Your task to perform on an android device: Go to Reddit.com Image 0: 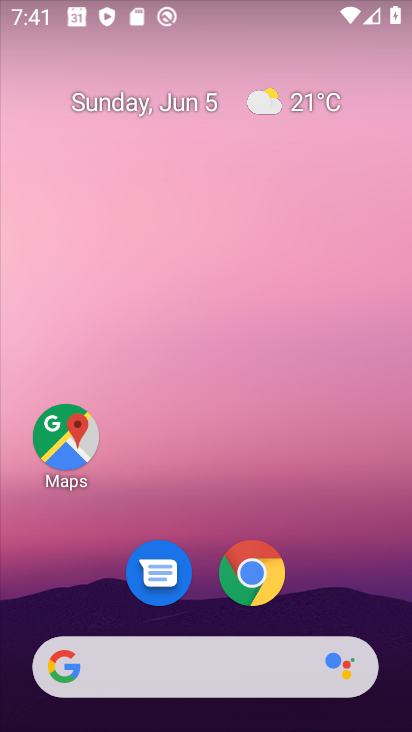
Step 0: click (250, 575)
Your task to perform on an android device: Go to Reddit.com Image 1: 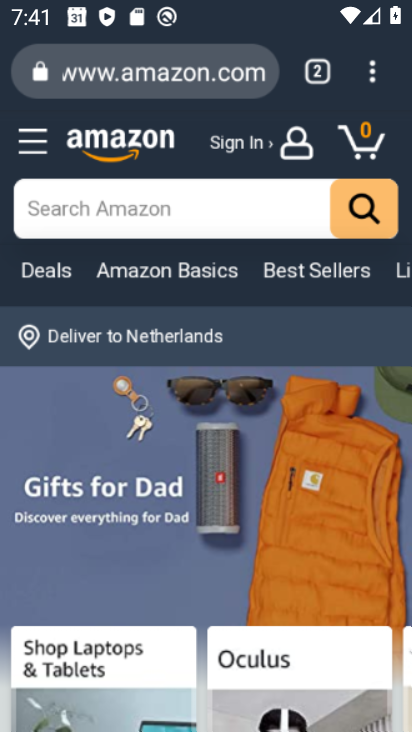
Step 1: click (369, 49)
Your task to perform on an android device: Go to Reddit.com Image 2: 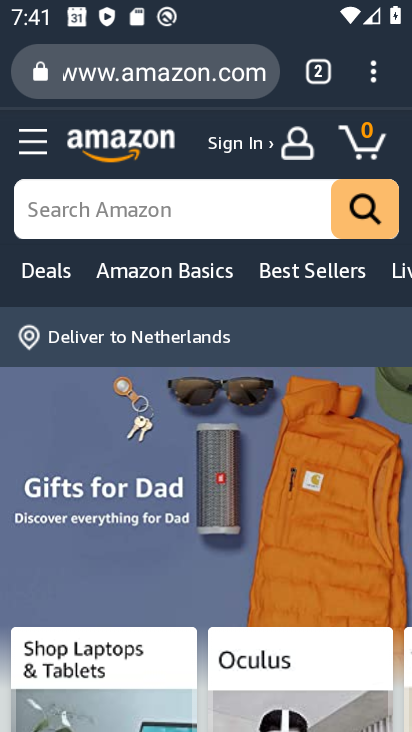
Step 2: click (377, 65)
Your task to perform on an android device: Go to Reddit.com Image 3: 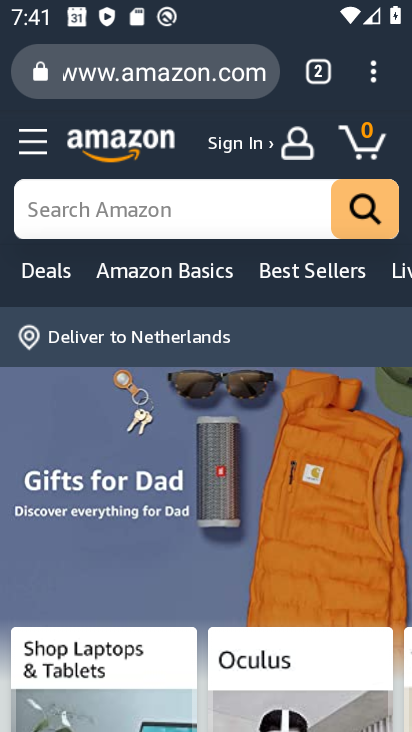
Step 3: click (370, 71)
Your task to perform on an android device: Go to Reddit.com Image 4: 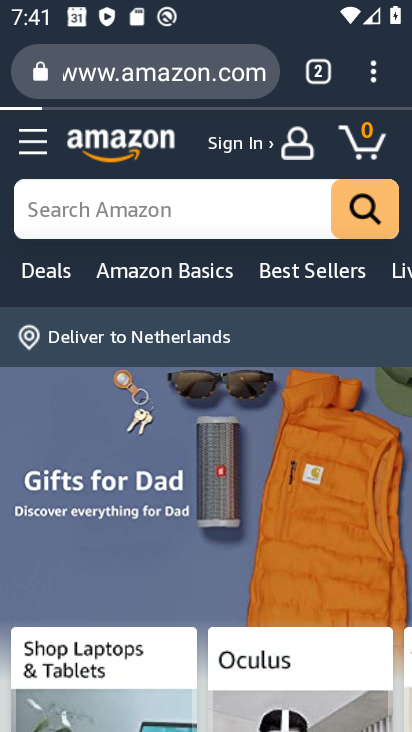
Step 4: click (370, 71)
Your task to perform on an android device: Go to Reddit.com Image 5: 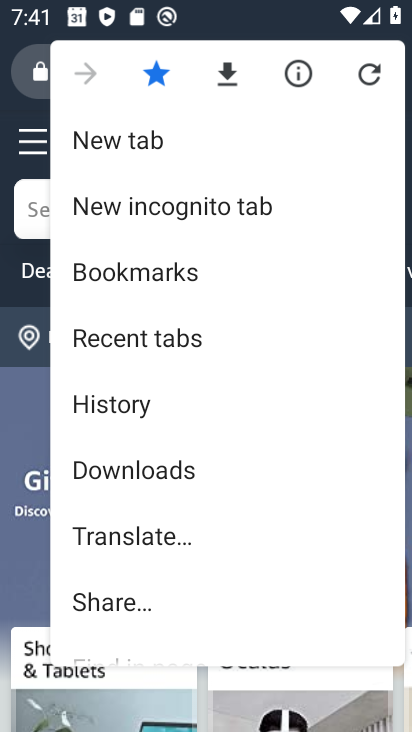
Step 5: click (155, 140)
Your task to perform on an android device: Go to Reddit.com Image 6: 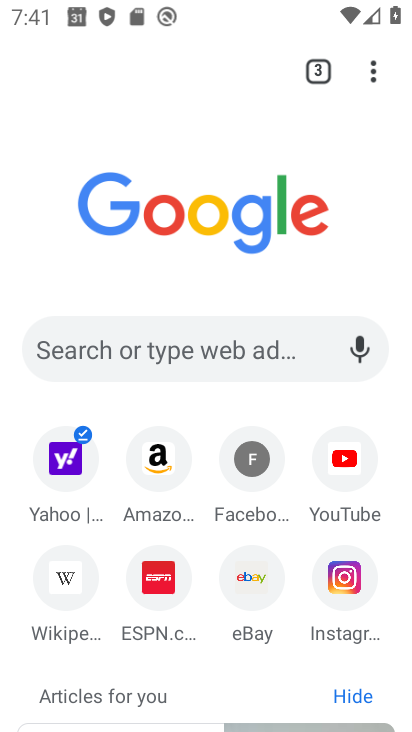
Step 6: click (201, 336)
Your task to perform on an android device: Go to Reddit.com Image 7: 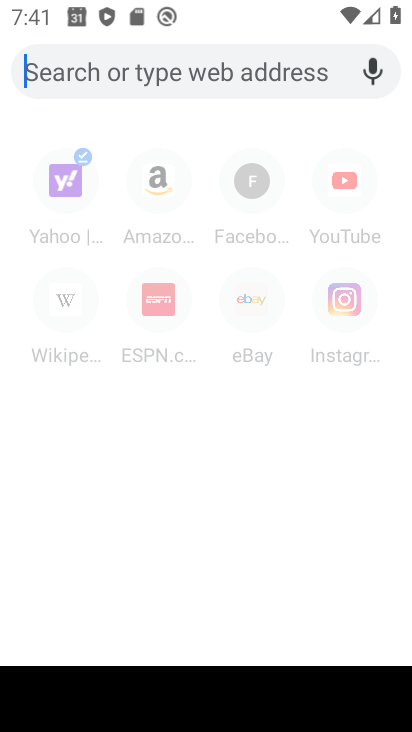
Step 7: type "Reddit.com"
Your task to perform on an android device: Go to Reddit.com Image 8: 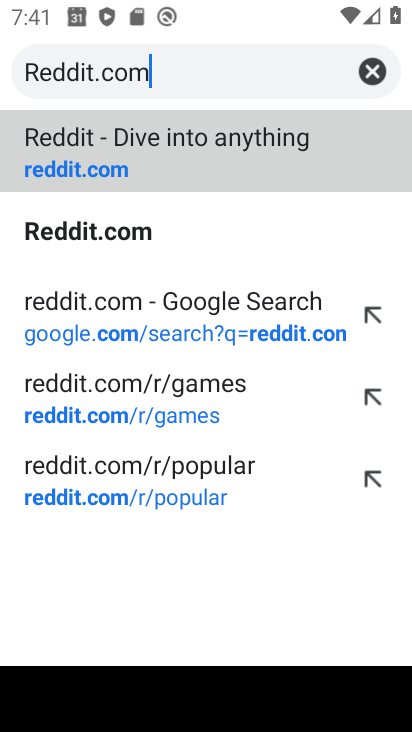
Step 8: click (250, 137)
Your task to perform on an android device: Go to Reddit.com Image 9: 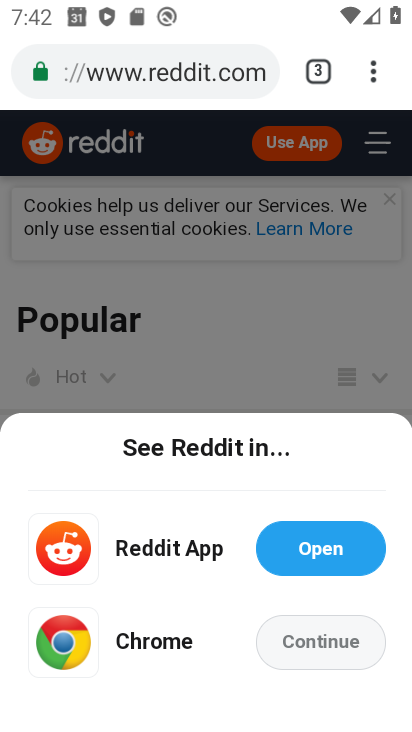
Step 9: task complete